Your task to perform on an android device: Add "acer predator" to the cart on bestbuy, then select checkout. Image 0: 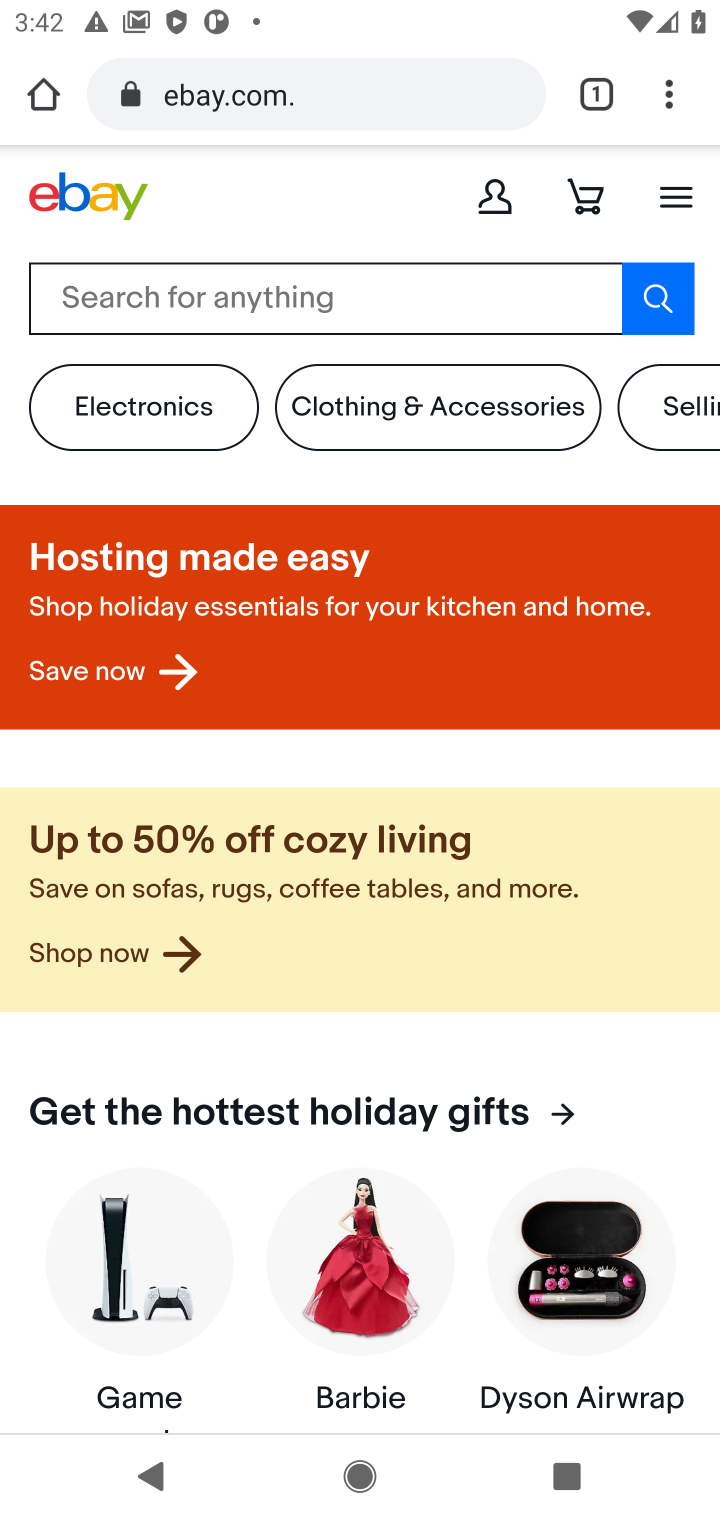
Step 0: click (316, 95)
Your task to perform on an android device: Add "acer predator" to the cart on bestbuy, then select checkout. Image 1: 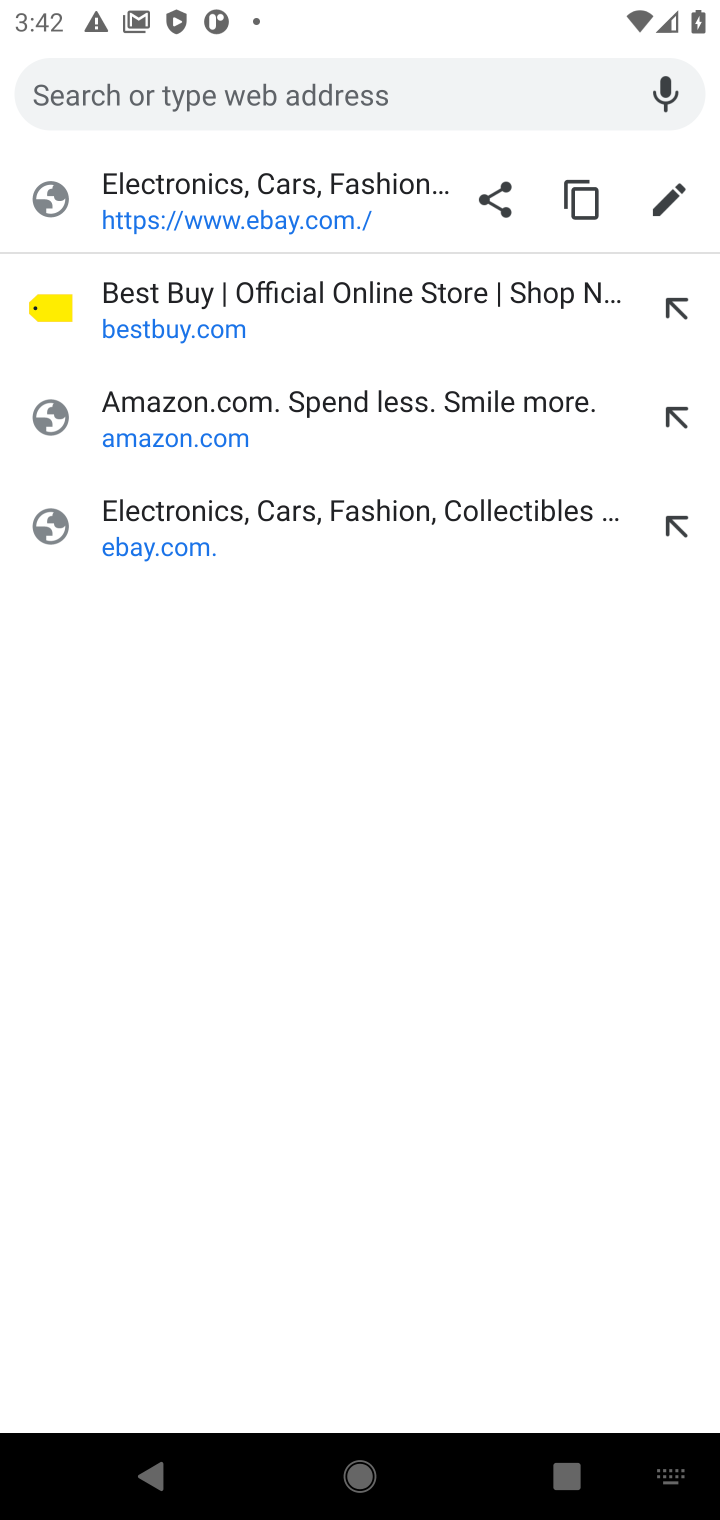
Step 1: click (304, 296)
Your task to perform on an android device: Add "acer predator" to the cart on bestbuy, then select checkout. Image 2: 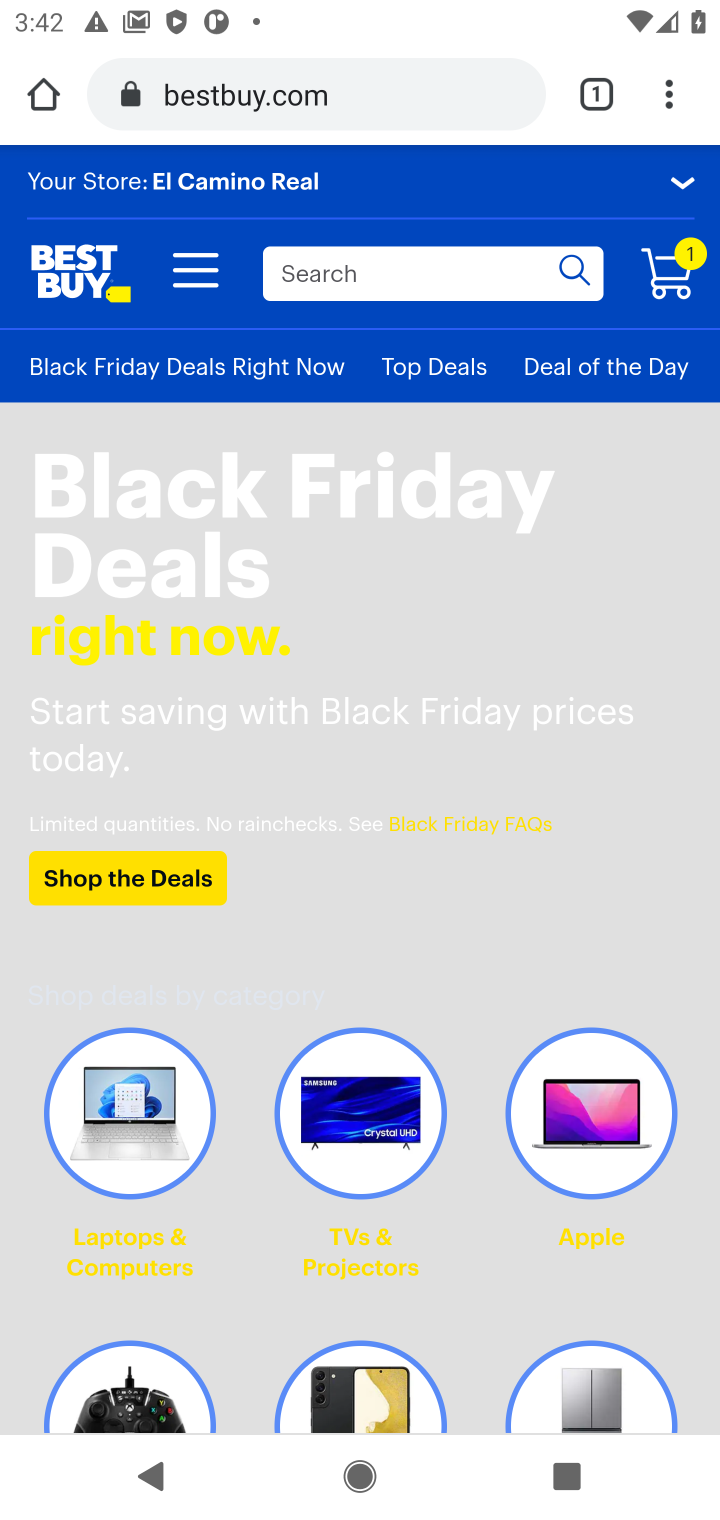
Step 2: click (475, 281)
Your task to perform on an android device: Add "acer predator" to the cart on bestbuy, then select checkout. Image 3: 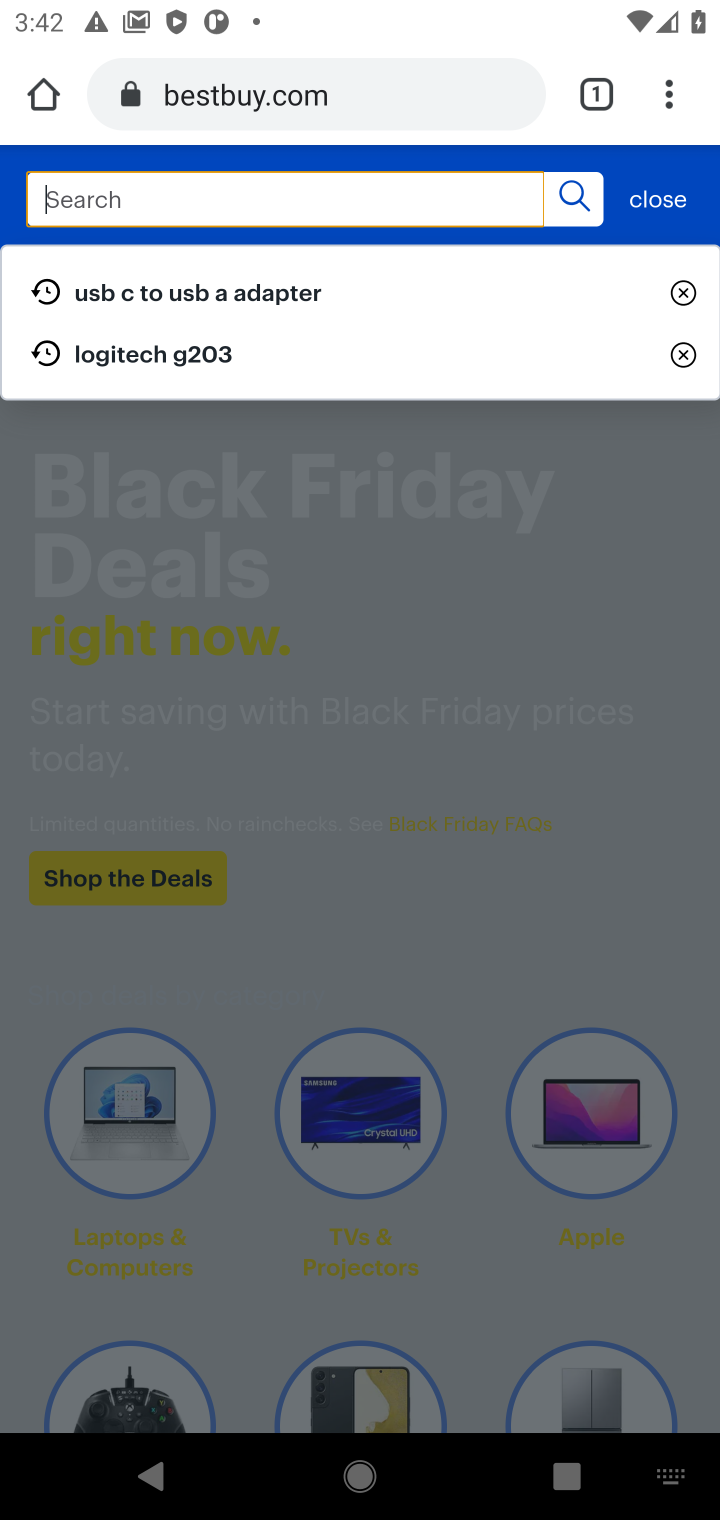
Step 3: type "acer predator"
Your task to perform on an android device: Add "acer predator" to the cart on bestbuy, then select checkout. Image 4: 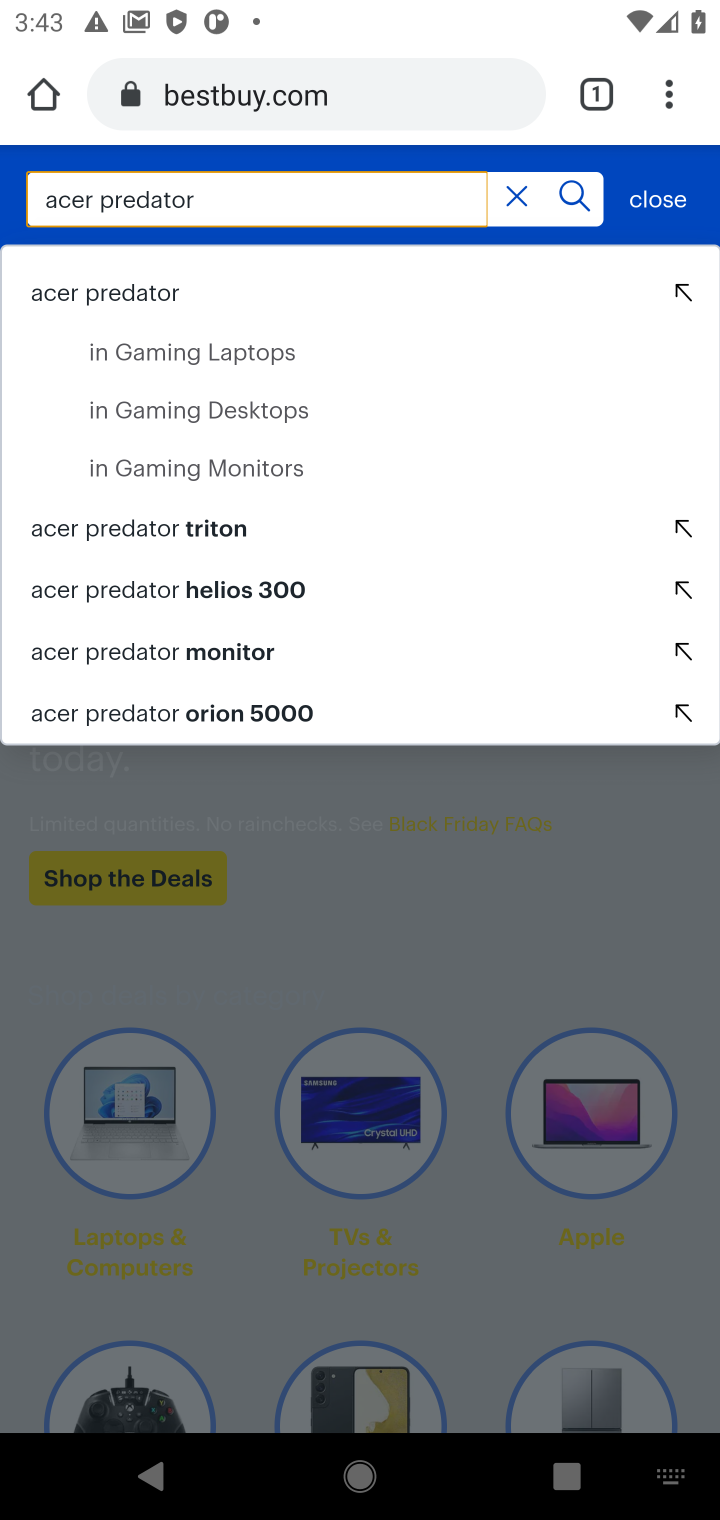
Step 4: click (92, 283)
Your task to perform on an android device: Add "acer predator" to the cart on bestbuy, then select checkout. Image 5: 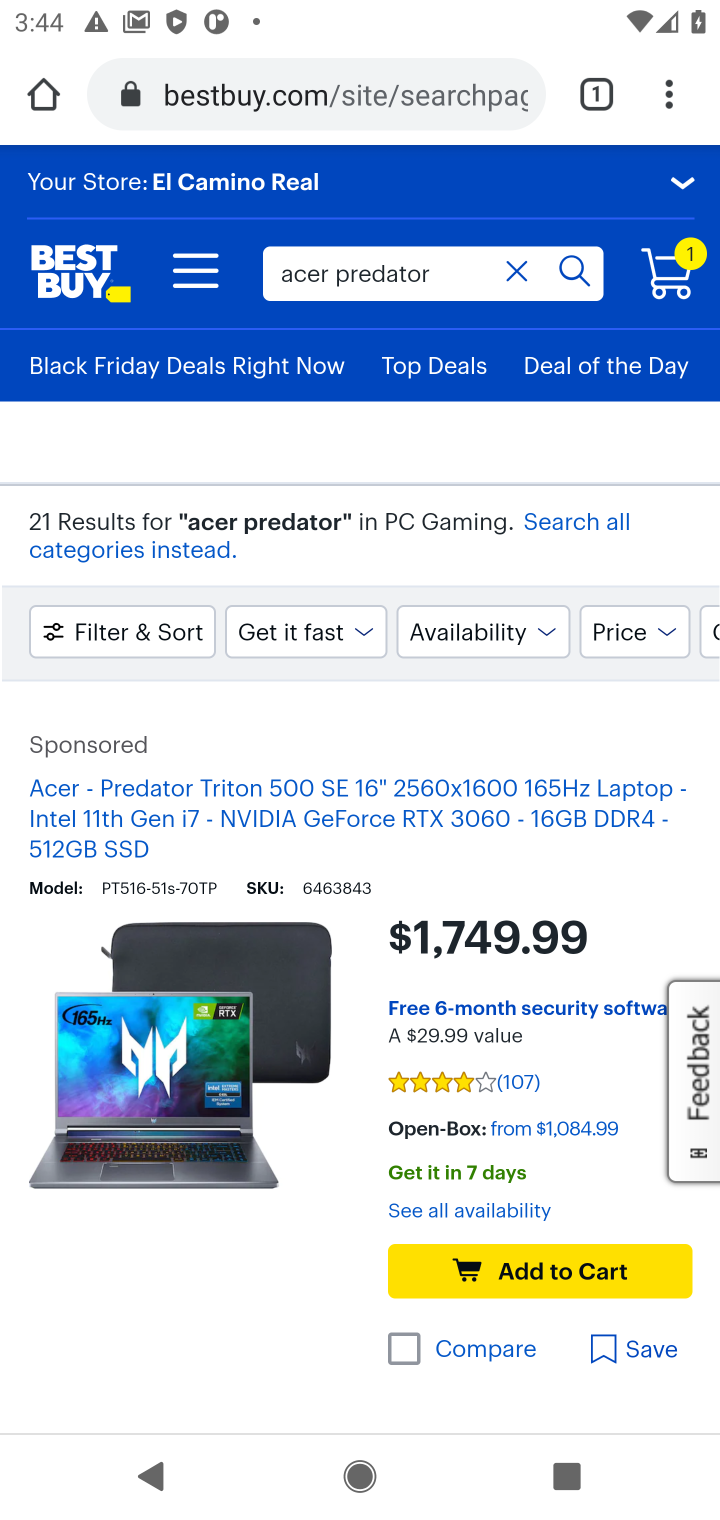
Step 5: click (525, 1274)
Your task to perform on an android device: Add "acer predator" to the cart on bestbuy, then select checkout. Image 6: 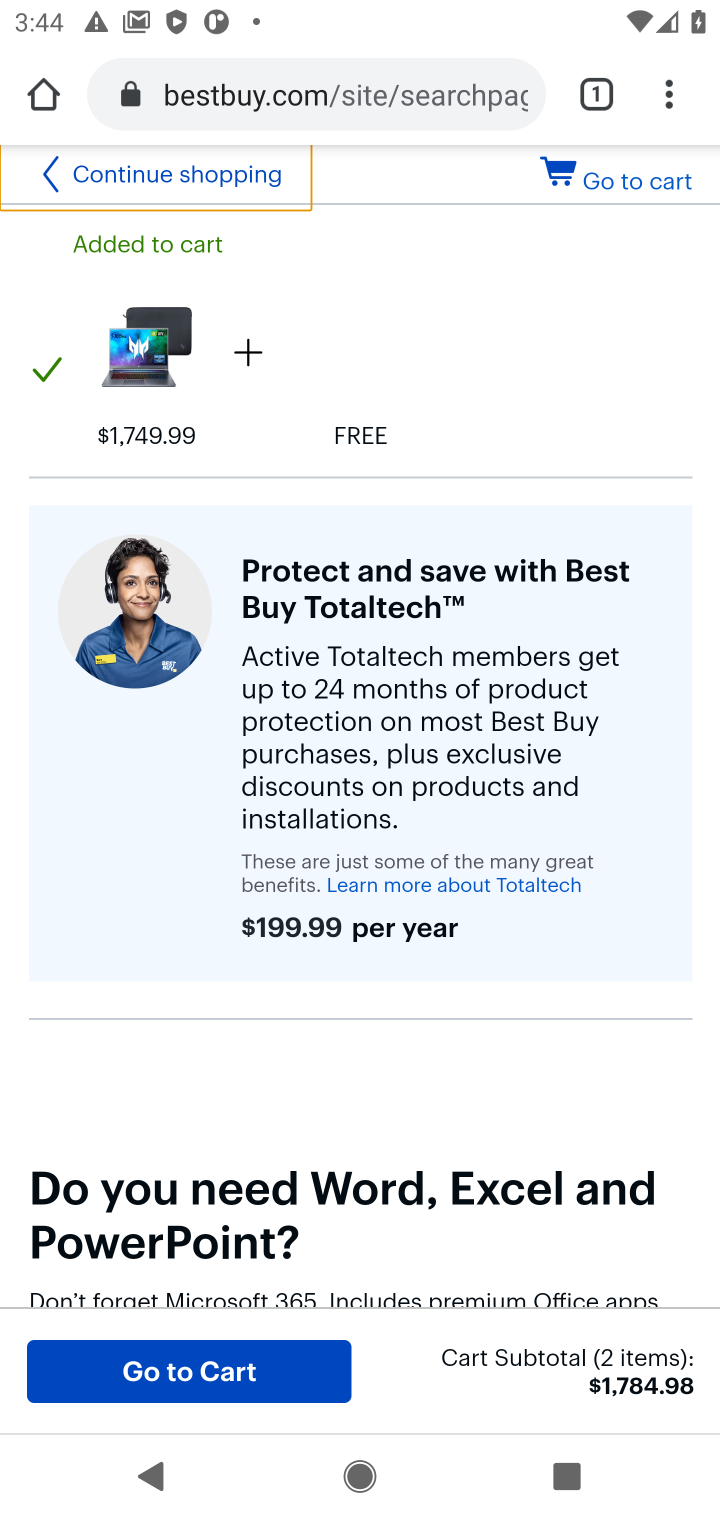
Step 6: click (209, 1375)
Your task to perform on an android device: Add "acer predator" to the cart on bestbuy, then select checkout. Image 7: 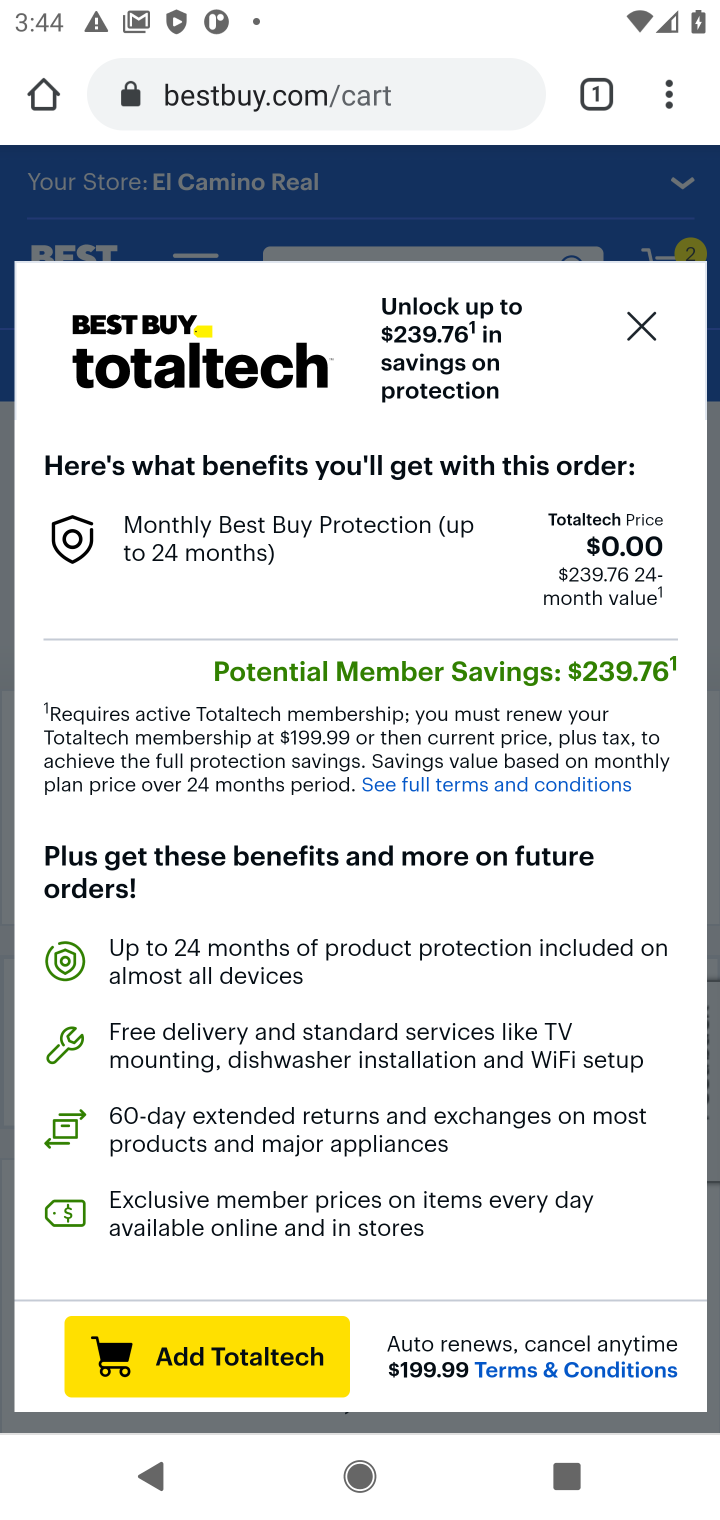
Step 7: click (633, 319)
Your task to perform on an android device: Add "acer predator" to the cart on bestbuy, then select checkout. Image 8: 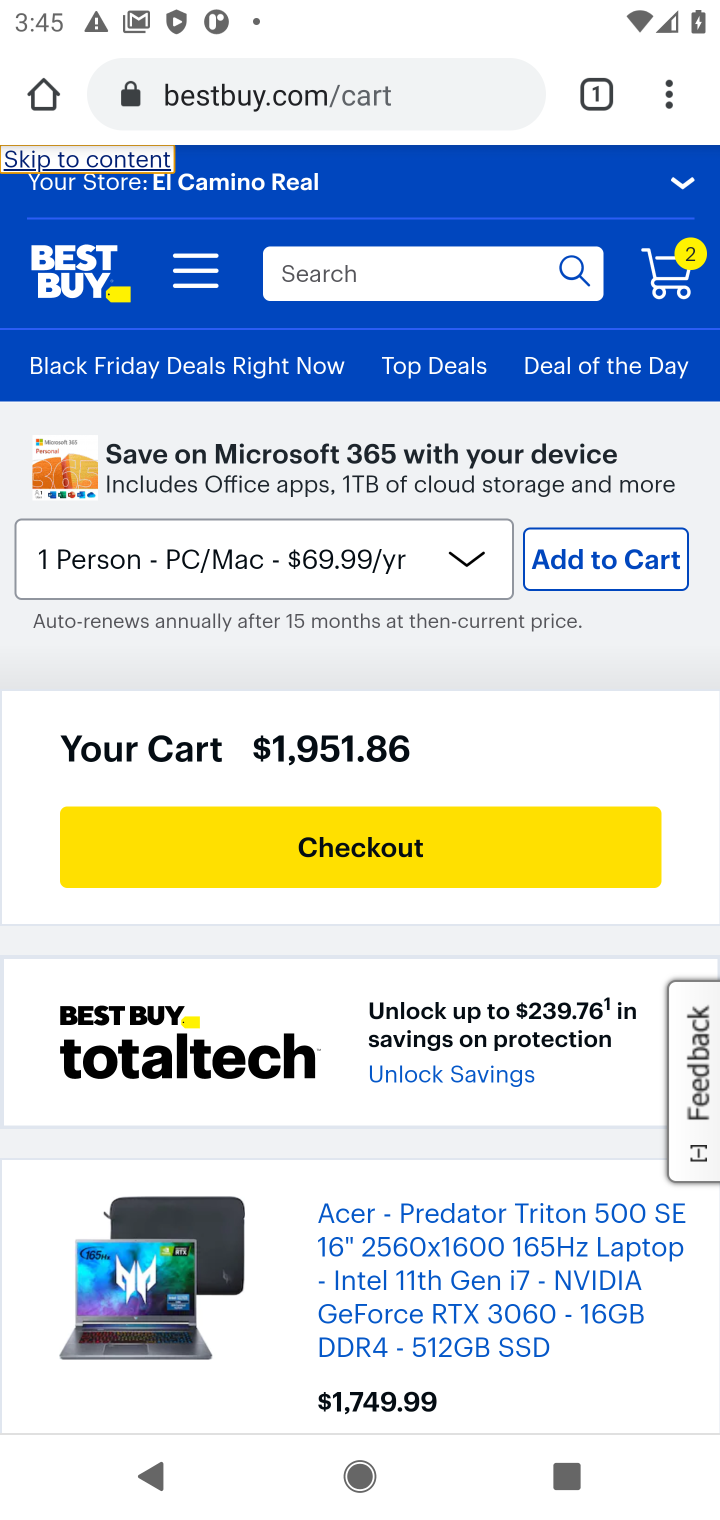
Step 8: click (349, 857)
Your task to perform on an android device: Add "acer predator" to the cart on bestbuy, then select checkout. Image 9: 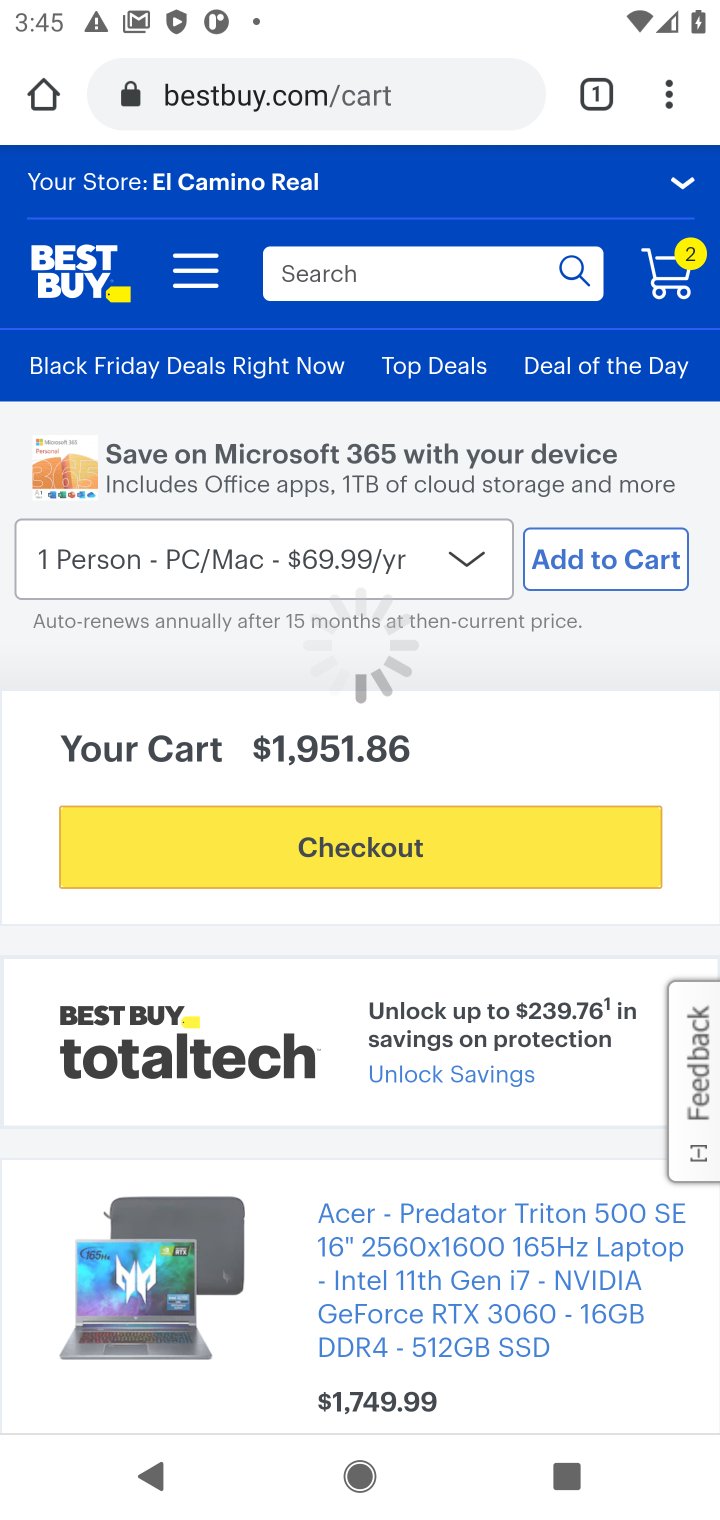
Step 9: task complete